Your task to perform on an android device: Open Maps and search for coffee Image 0: 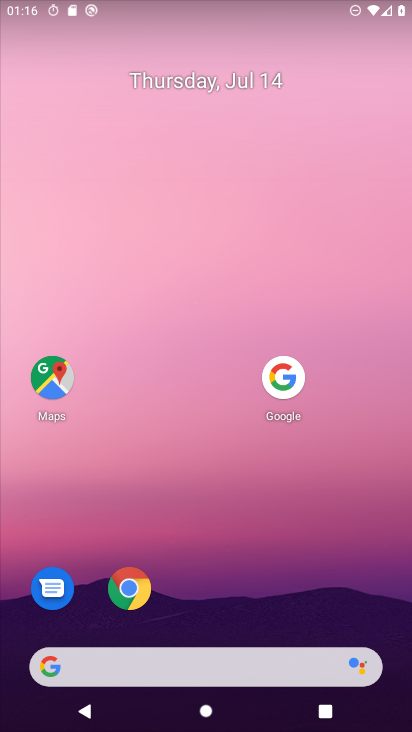
Step 0: click (52, 375)
Your task to perform on an android device: Open Maps and search for coffee Image 1: 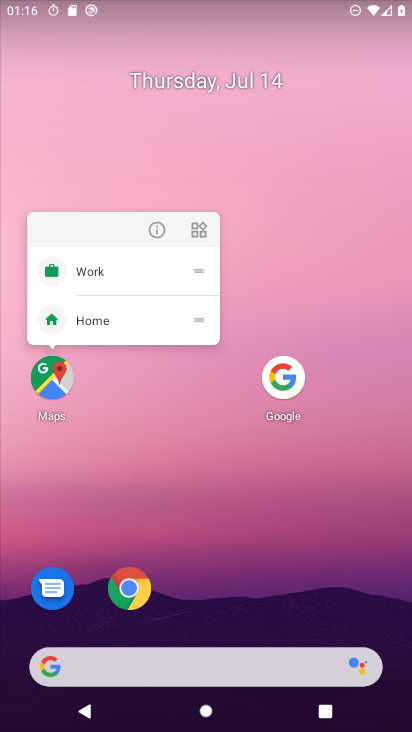
Step 1: click (59, 381)
Your task to perform on an android device: Open Maps and search for coffee Image 2: 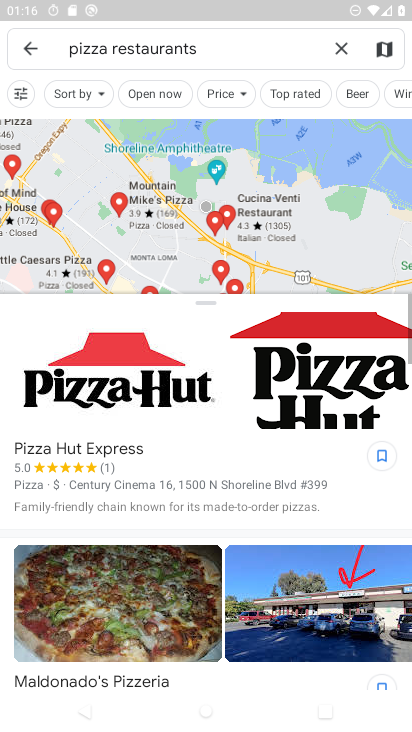
Step 2: click (341, 43)
Your task to perform on an android device: Open Maps and search for coffee Image 3: 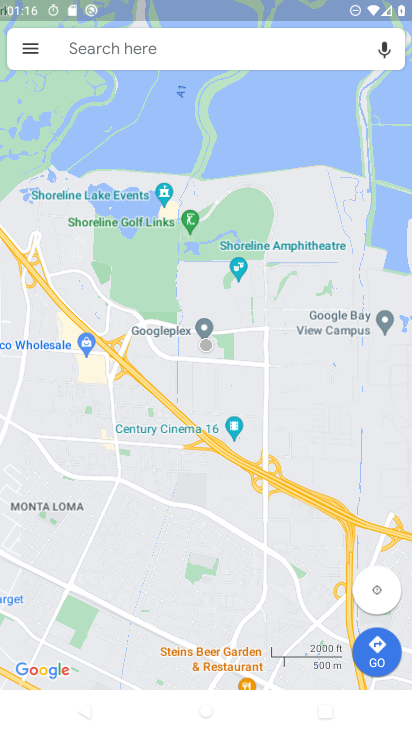
Step 3: click (178, 52)
Your task to perform on an android device: Open Maps and search for coffee Image 4: 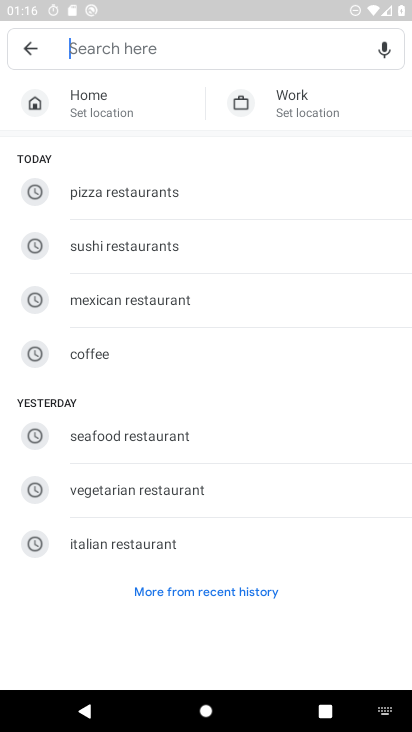
Step 4: click (86, 352)
Your task to perform on an android device: Open Maps and search for coffee Image 5: 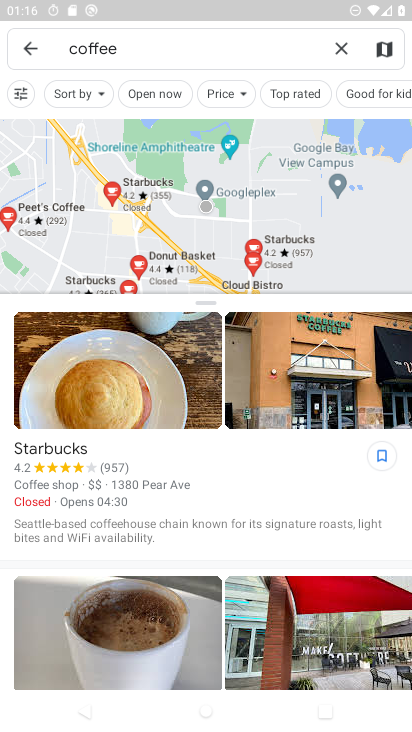
Step 5: task complete